Your task to perform on an android device: set an alarm Image 0: 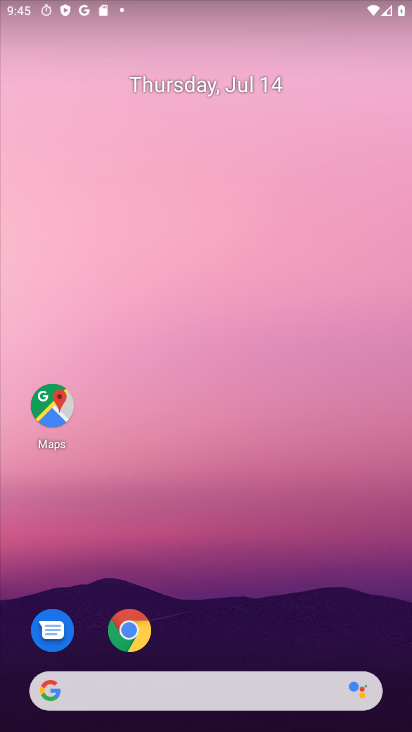
Step 0: drag from (18, 693) to (196, 154)
Your task to perform on an android device: set an alarm Image 1: 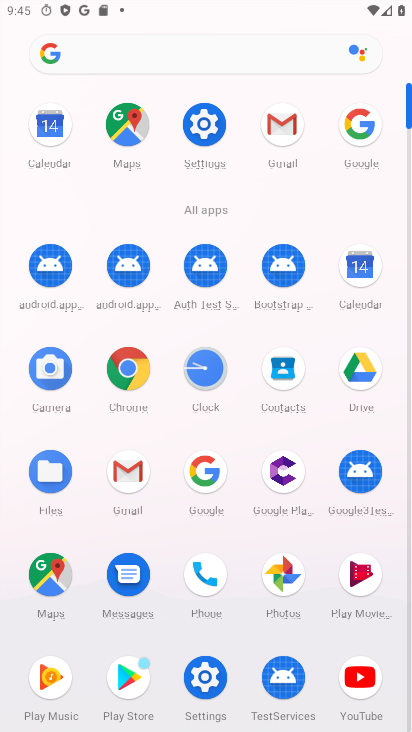
Step 1: click (208, 358)
Your task to perform on an android device: set an alarm Image 2: 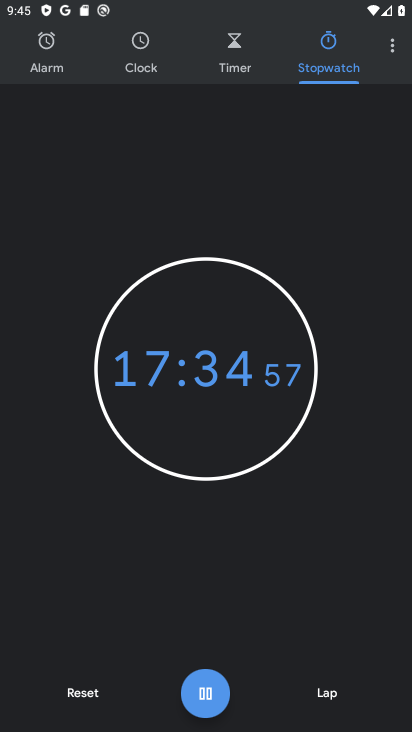
Step 2: click (65, 73)
Your task to perform on an android device: set an alarm Image 3: 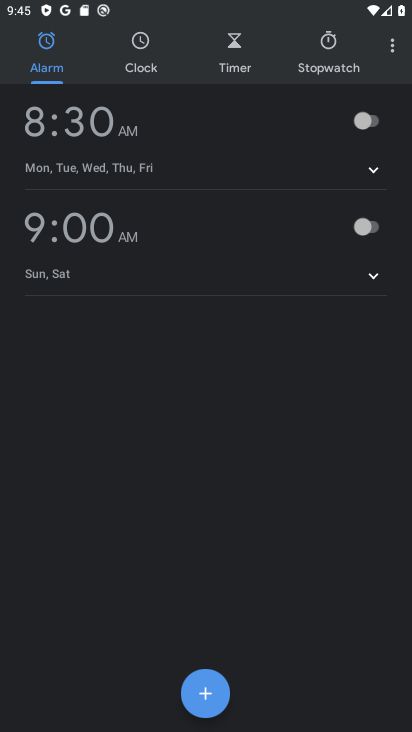
Step 3: click (352, 116)
Your task to perform on an android device: set an alarm Image 4: 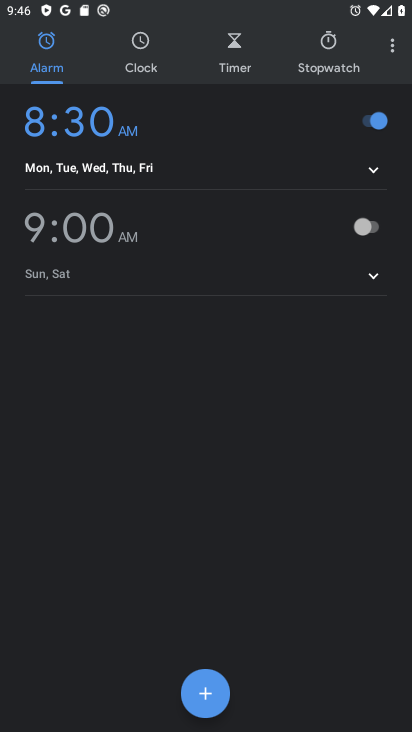
Step 4: task complete